Your task to perform on an android device: Open location settings Image 0: 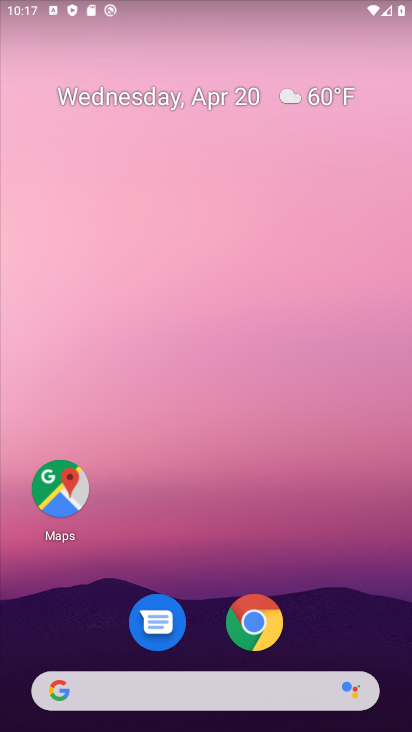
Step 0: drag from (366, 170) to (368, 33)
Your task to perform on an android device: Open location settings Image 1: 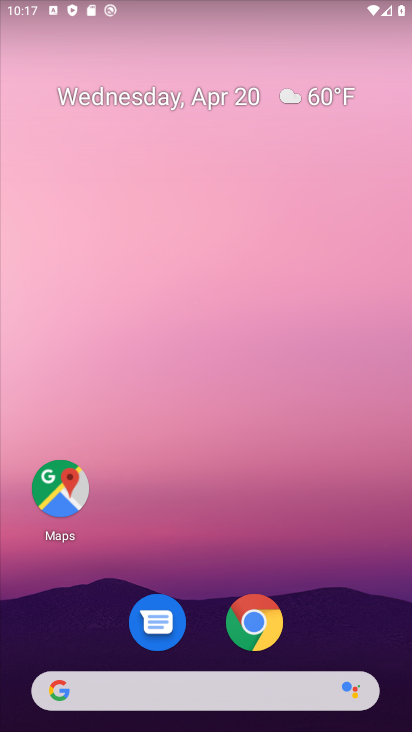
Step 1: drag from (357, 603) to (350, 59)
Your task to perform on an android device: Open location settings Image 2: 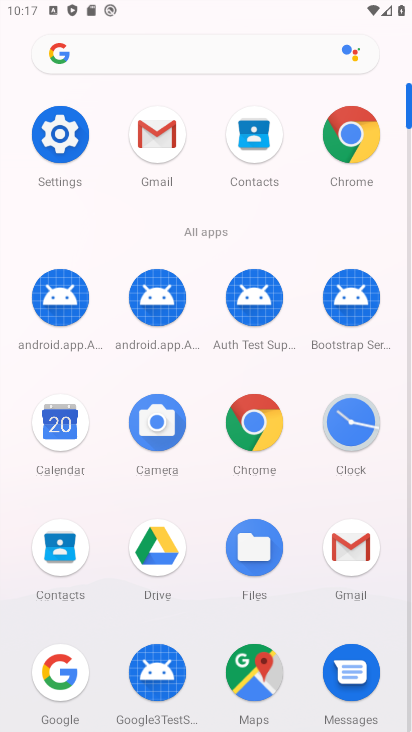
Step 2: click (45, 135)
Your task to perform on an android device: Open location settings Image 3: 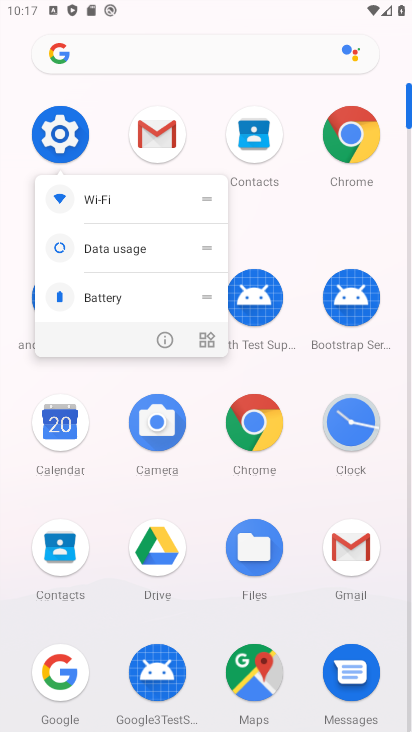
Step 3: click (45, 136)
Your task to perform on an android device: Open location settings Image 4: 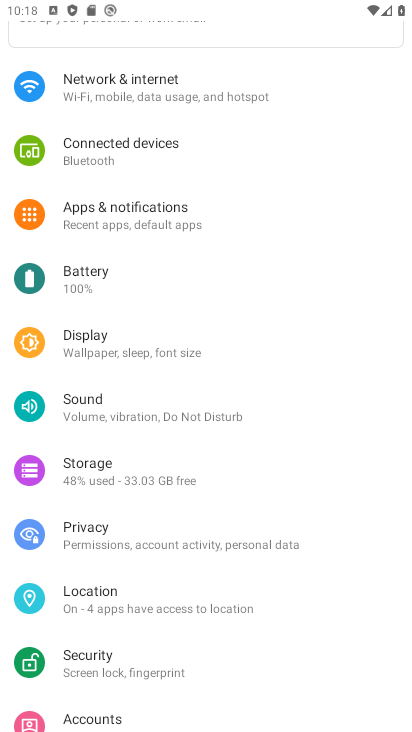
Step 4: click (132, 599)
Your task to perform on an android device: Open location settings Image 5: 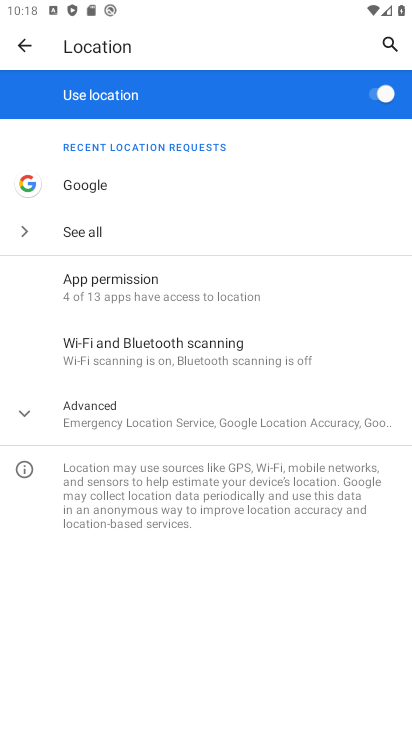
Step 5: task complete